Your task to perform on an android device: set an alarm Image 0: 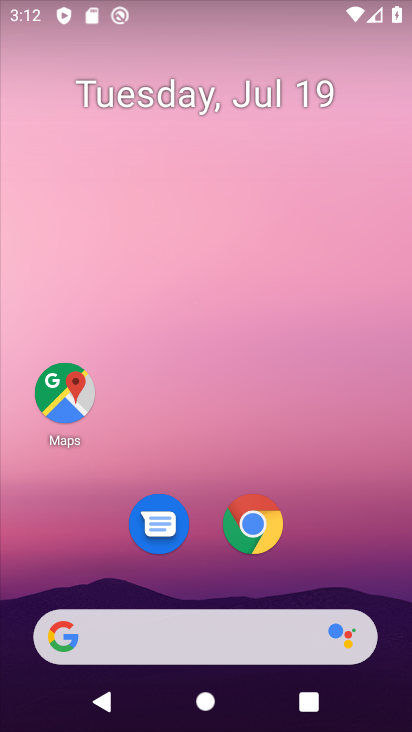
Step 0: drag from (329, 537) to (327, 3)
Your task to perform on an android device: set an alarm Image 1: 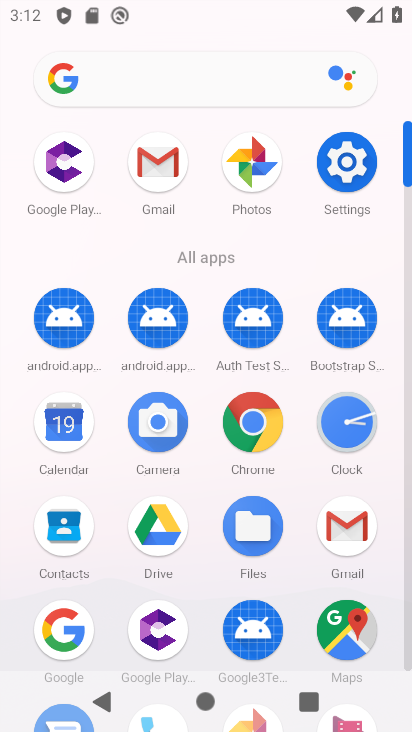
Step 1: click (336, 429)
Your task to perform on an android device: set an alarm Image 2: 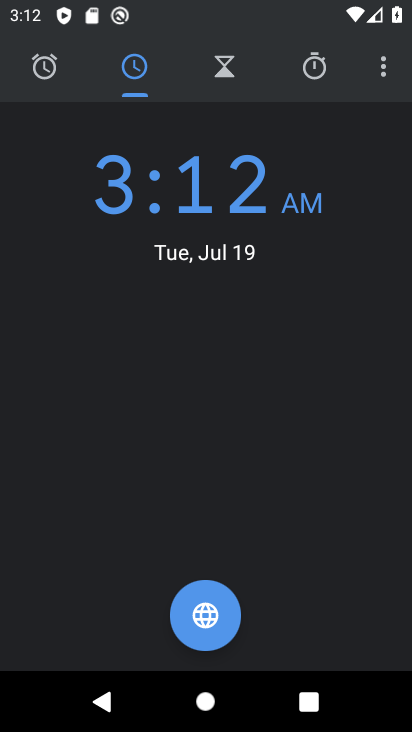
Step 2: click (50, 68)
Your task to perform on an android device: set an alarm Image 3: 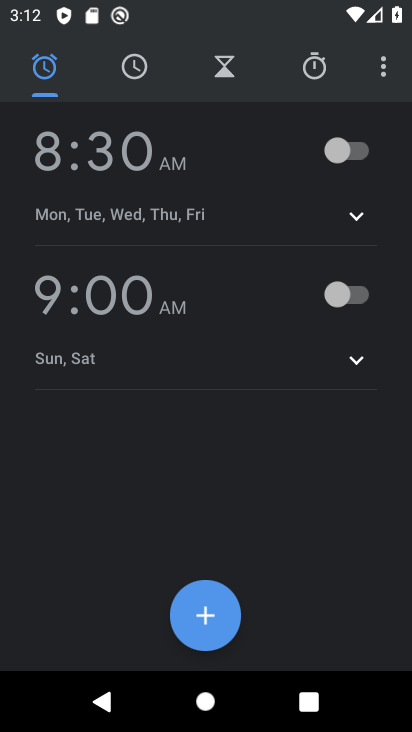
Step 3: click (201, 615)
Your task to perform on an android device: set an alarm Image 4: 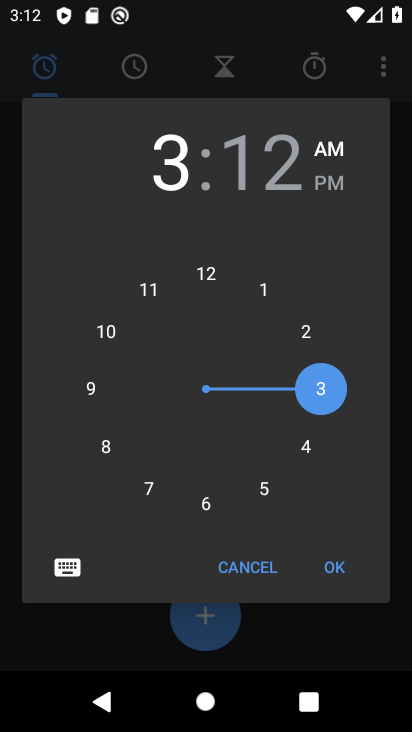
Step 4: click (265, 187)
Your task to perform on an android device: set an alarm Image 5: 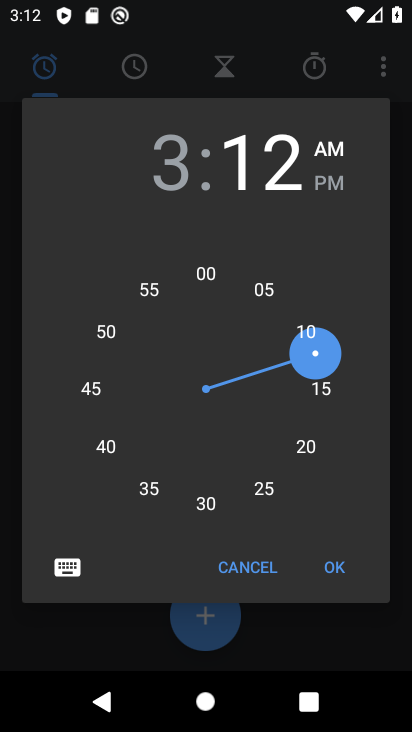
Step 5: click (215, 277)
Your task to perform on an android device: set an alarm Image 6: 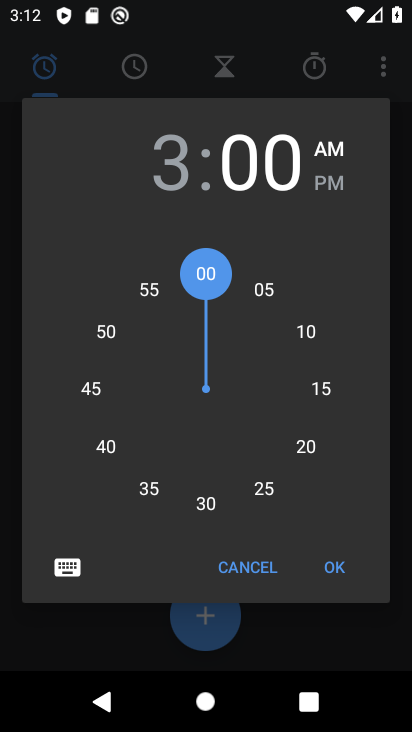
Step 6: click (330, 183)
Your task to perform on an android device: set an alarm Image 7: 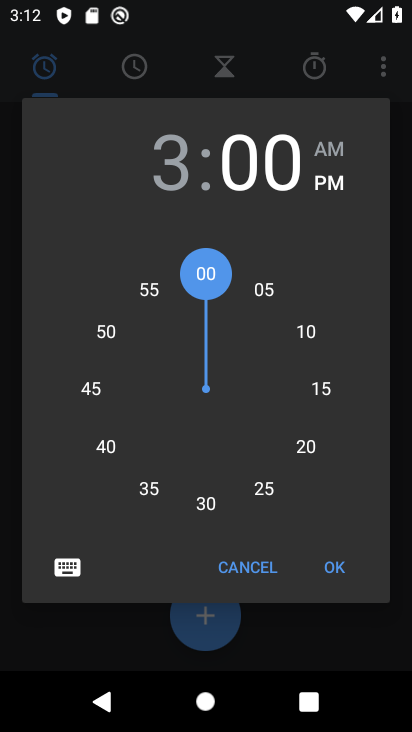
Step 7: click (339, 569)
Your task to perform on an android device: set an alarm Image 8: 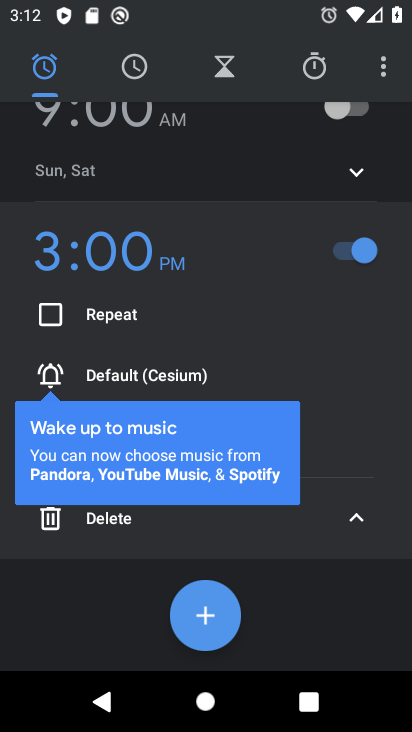
Step 8: task complete